Your task to perform on an android device: turn on the 24-hour format for clock Image 0: 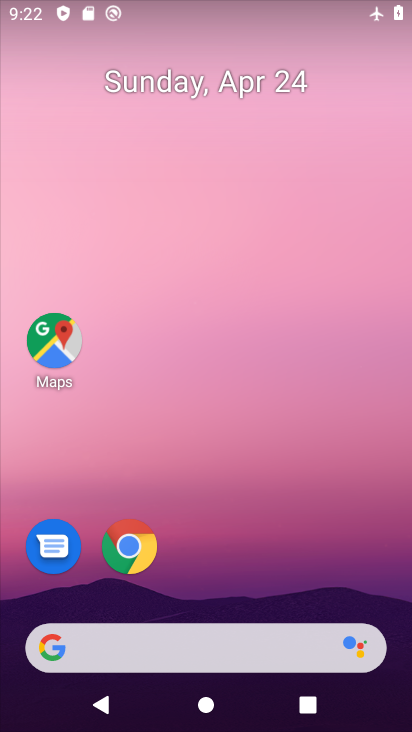
Step 0: drag from (236, 445) to (259, 239)
Your task to perform on an android device: turn on the 24-hour format for clock Image 1: 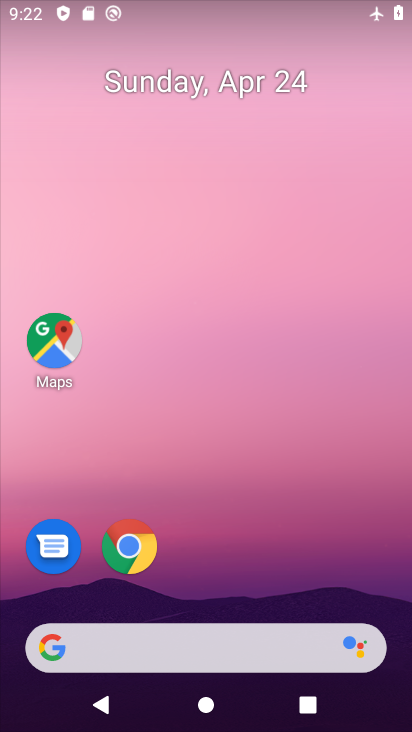
Step 1: drag from (269, 572) to (269, 121)
Your task to perform on an android device: turn on the 24-hour format for clock Image 2: 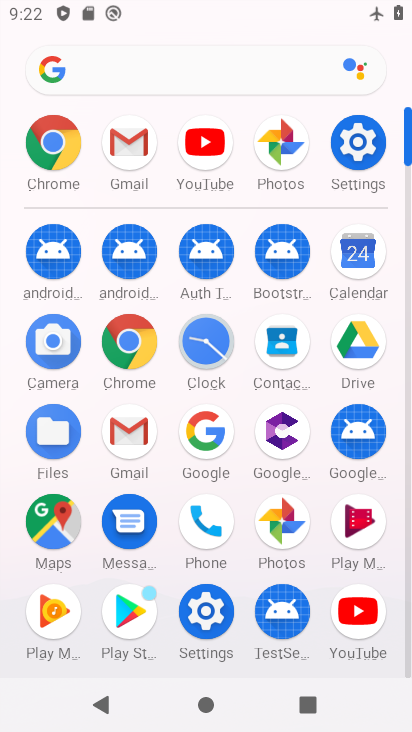
Step 2: click (207, 344)
Your task to perform on an android device: turn on the 24-hour format for clock Image 3: 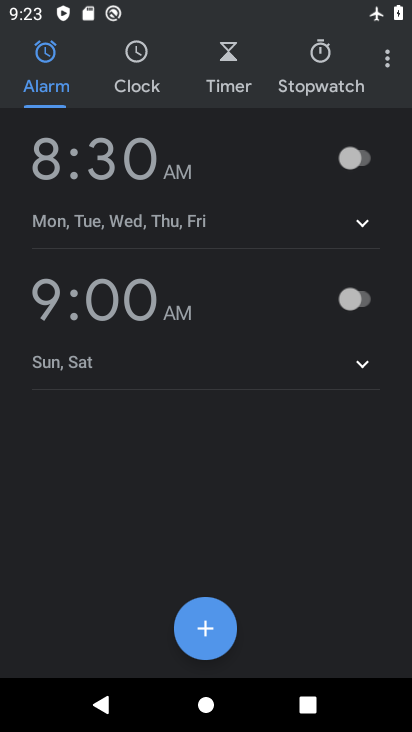
Step 3: click (381, 59)
Your task to perform on an android device: turn on the 24-hour format for clock Image 4: 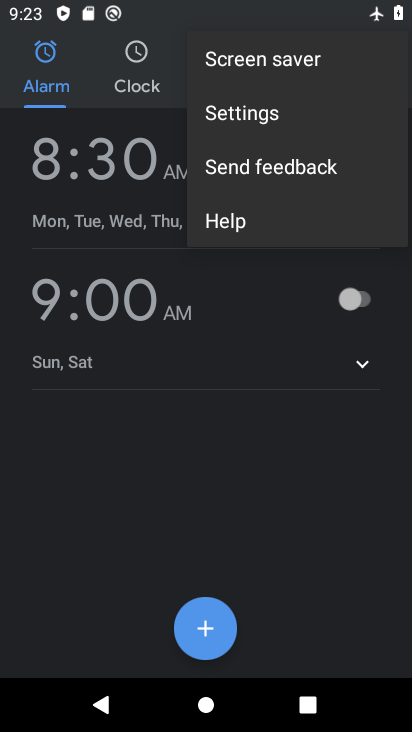
Step 4: click (323, 123)
Your task to perform on an android device: turn on the 24-hour format for clock Image 5: 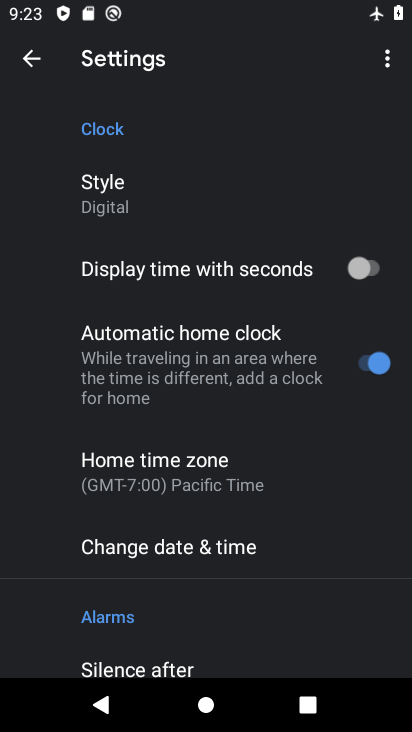
Step 5: click (212, 537)
Your task to perform on an android device: turn on the 24-hour format for clock Image 6: 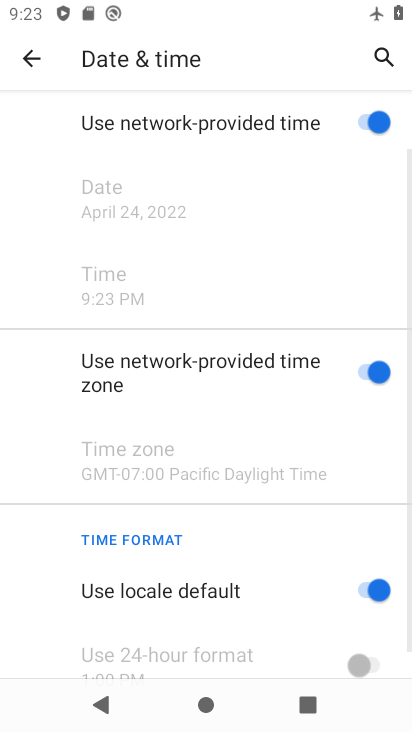
Step 6: drag from (311, 589) to (309, 390)
Your task to perform on an android device: turn on the 24-hour format for clock Image 7: 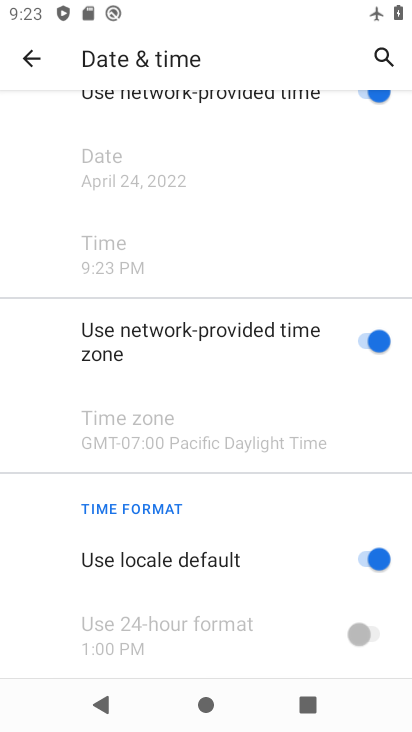
Step 7: click (361, 549)
Your task to perform on an android device: turn on the 24-hour format for clock Image 8: 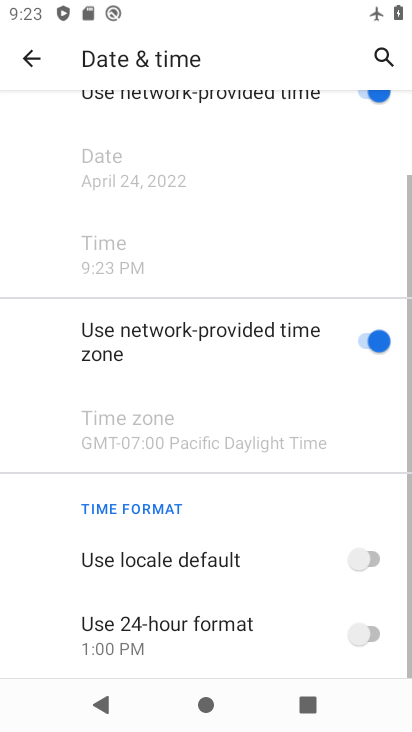
Step 8: click (363, 629)
Your task to perform on an android device: turn on the 24-hour format for clock Image 9: 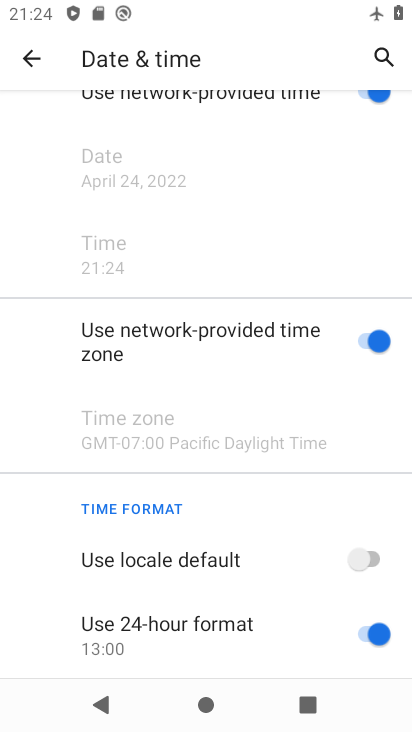
Step 9: task complete